Your task to perform on an android device: turn on airplane mode Image 0: 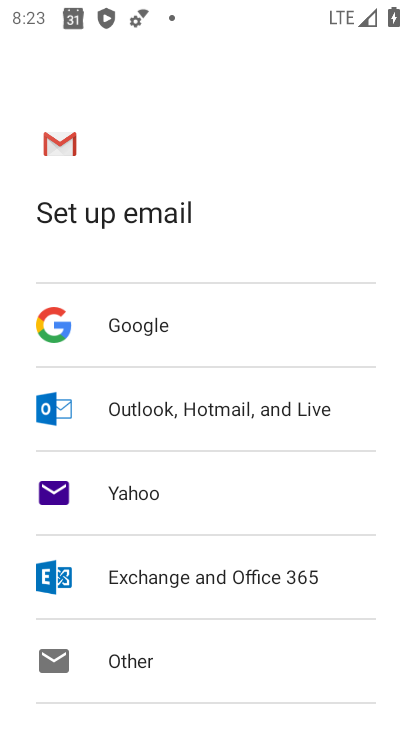
Step 0: drag from (314, 109) to (271, 657)
Your task to perform on an android device: turn on airplane mode Image 1: 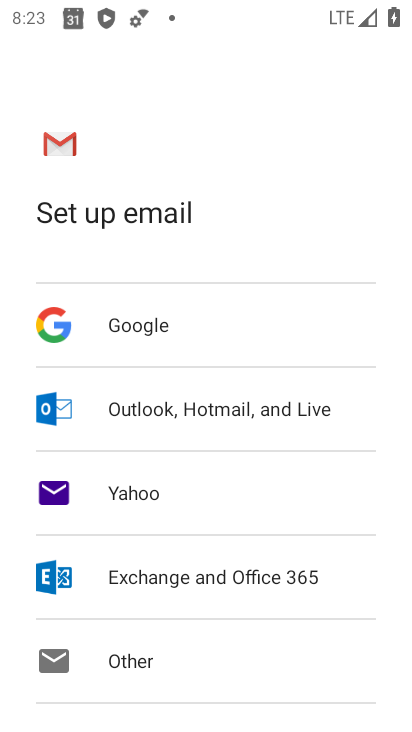
Step 1: drag from (350, 11) to (239, 629)
Your task to perform on an android device: turn on airplane mode Image 2: 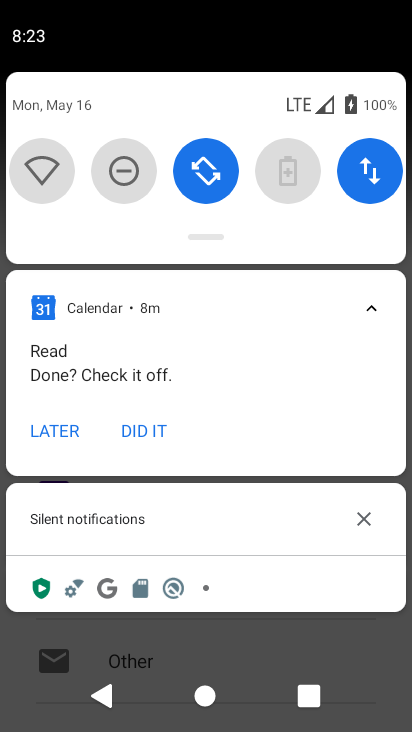
Step 2: drag from (224, 229) to (190, 697)
Your task to perform on an android device: turn on airplane mode Image 3: 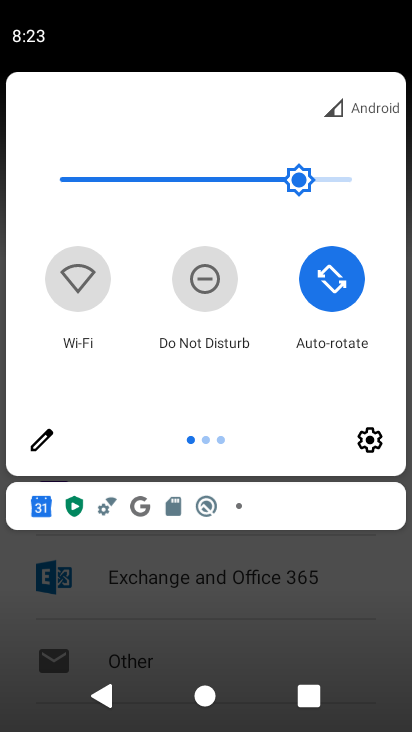
Step 3: drag from (338, 288) to (13, 287)
Your task to perform on an android device: turn on airplane mode Image 4: 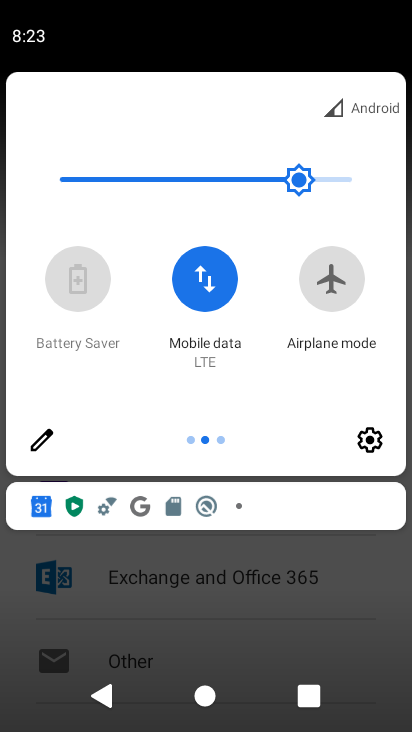
Step 4: click (338, 281)
Your task to perform on an android device: turn on airplane mode Image 5: 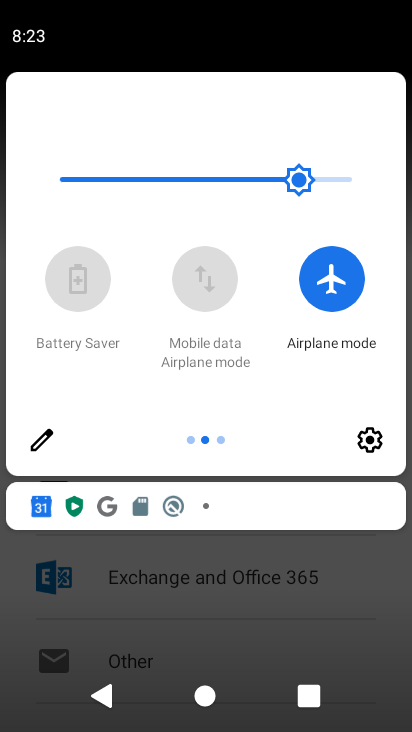
Step 5: task complete